Your task to perform on an android device: move a message to another label in the gmail app Image 0: 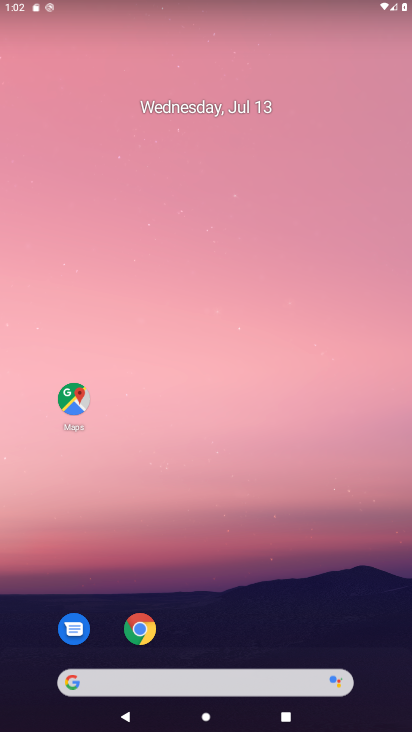
Step 0: drag from (299, 636) to (276, 229)
Your task to perform on an android device: move a message to another label in the gmail app Image 1: 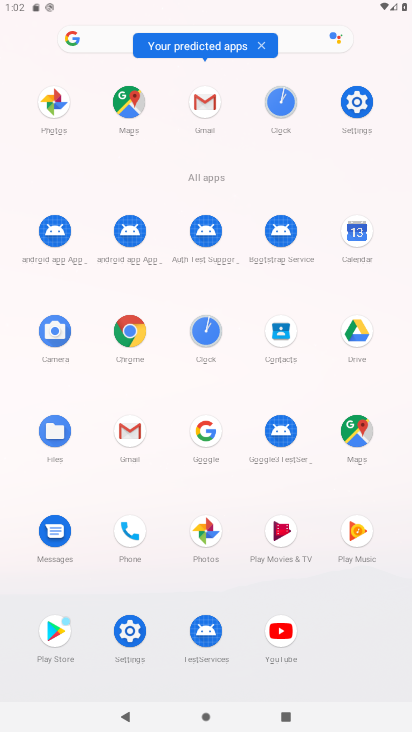
Step 1: click (202, 112)
Your task to perform on an android device: move a message to another label in the gmail app Image 2: 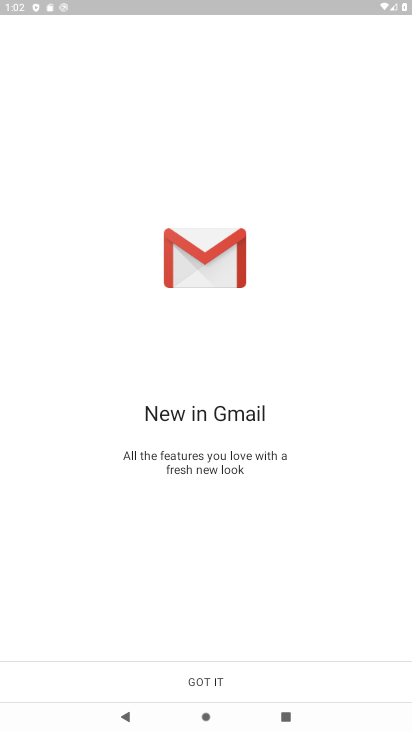
Step 2: click (285, 672)
Your task to perform on an android device: move a message to another label in the gmail app Image 3: 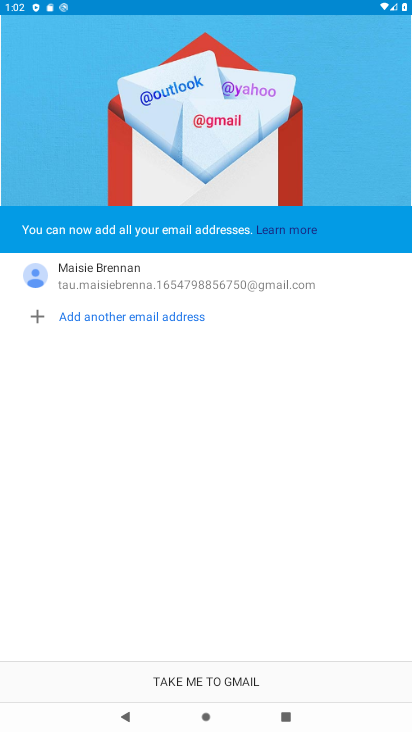
Step 3: click (263, 673)
Your task to perform on an android device: move a message to another label in the gmail app Image 4: 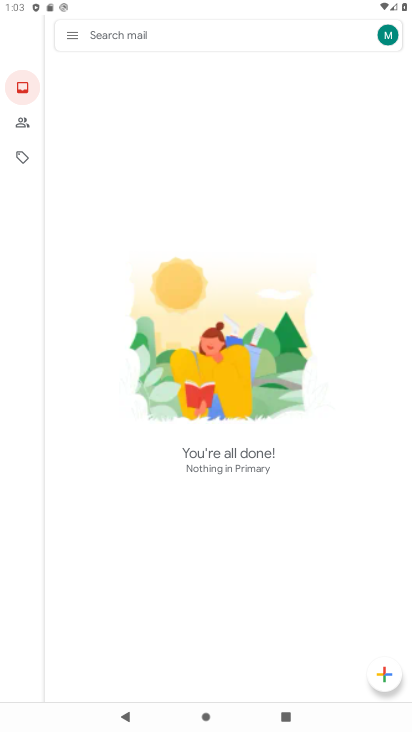
Step 4: task complete